Your task to perform on an android device: delete location history Image 0: 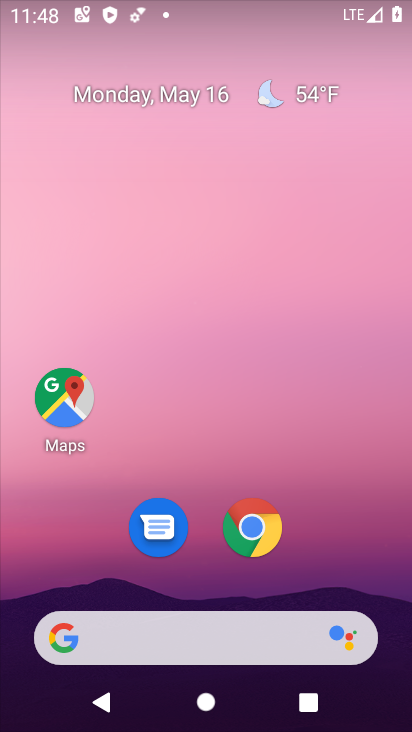
Step 0: drag from (205, 665) to (271, 211)
Your task to perform on an android device: delete location history Image 1: 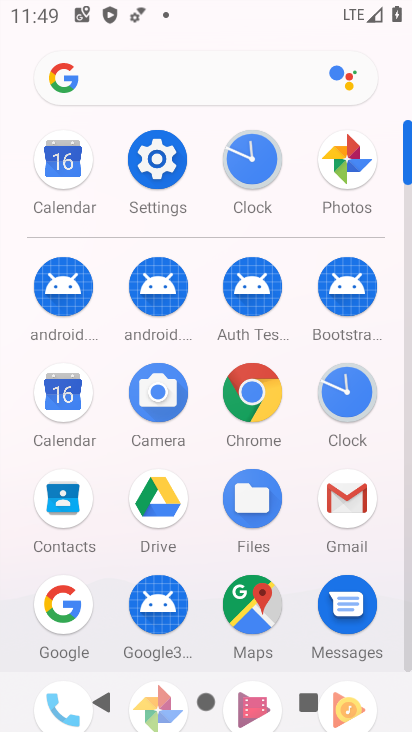
Step 1: click (139, 155)
Your task to perform on an android device: delete location history Image 2: 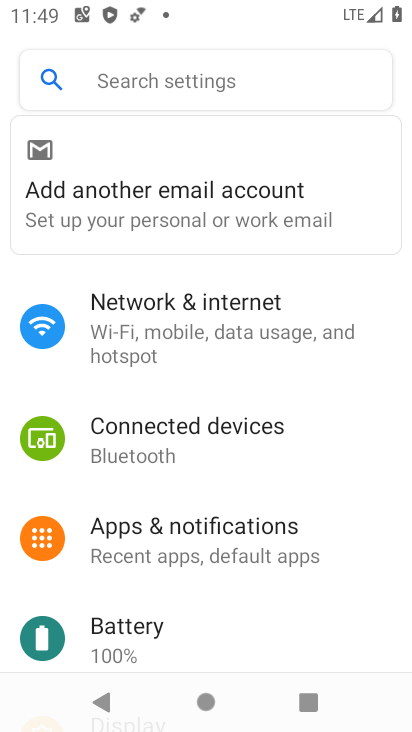
Step 2: click (185, 78)
Your task to perform on an android device: delete location history Image 3: 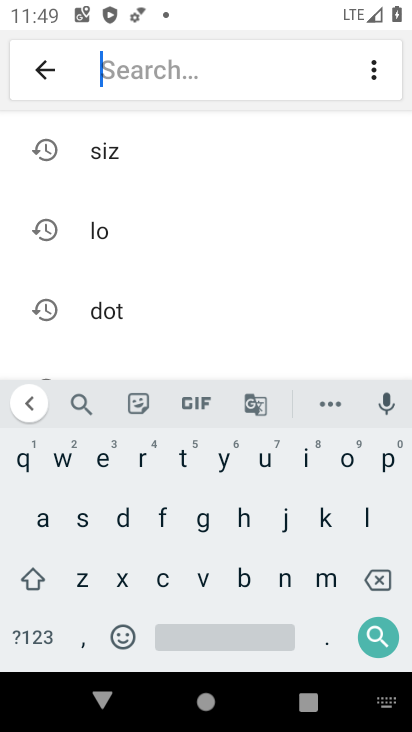
Step 3: click (128, 238)
Your task to perform on an android device: delete location history Image 4: 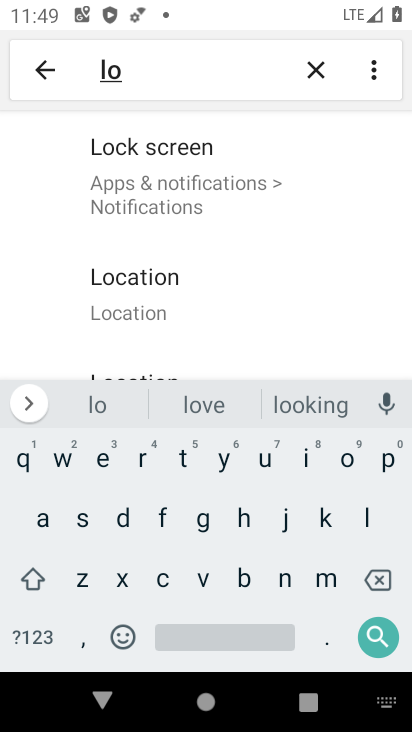
Step 4: click (122, 304)
Your task to perform on an android device: delete location history Image 5: 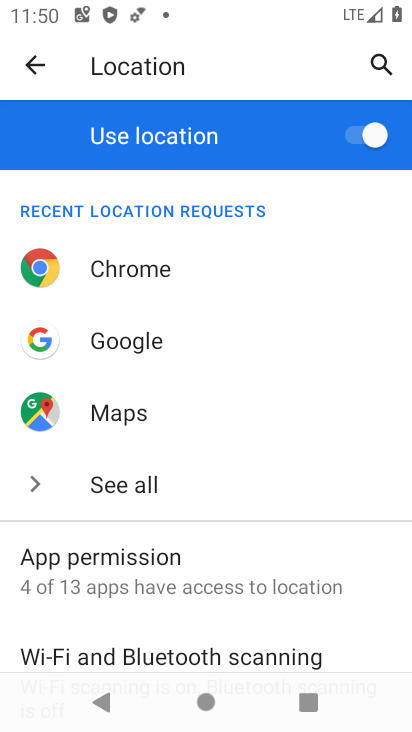
Step 5: drag from (197, 381) to (207, 228)
Your task to perform on an android device: delete location history Image 6: 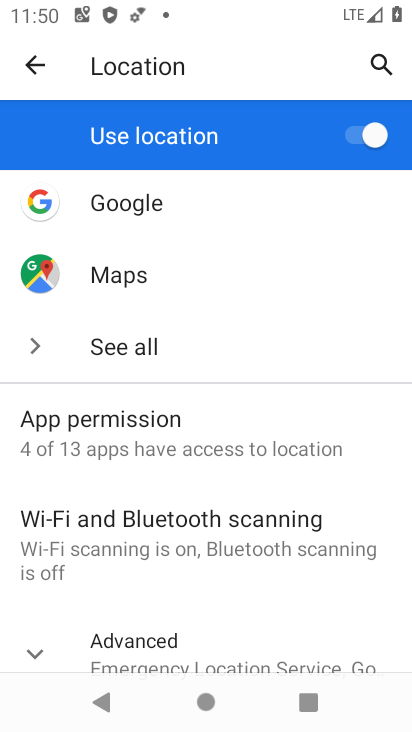
Step 6: drag from (200, 445) to (212, 353)
Your task to perform on an android device: delete location history Image 7: 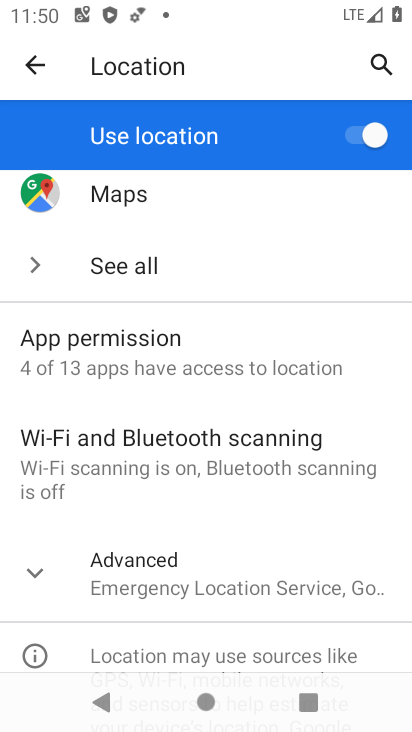
Step 7: click (56, 569)
Your task to perform on an android device: delete location history Image 8: 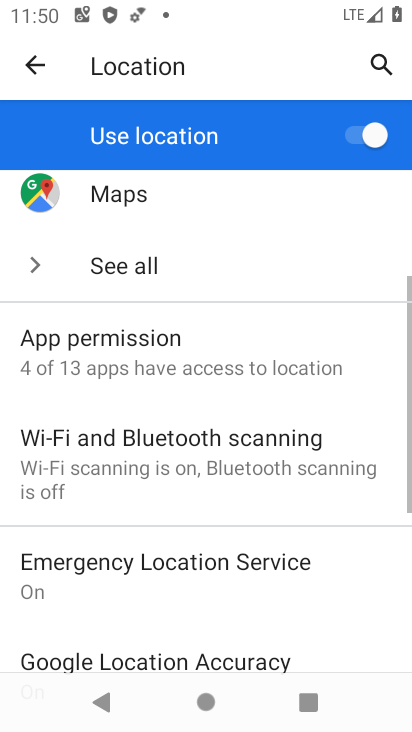
Step 8: drag from (137, 556) to (188, 405)
Your task to perform on an android device: delete location history Image 9: 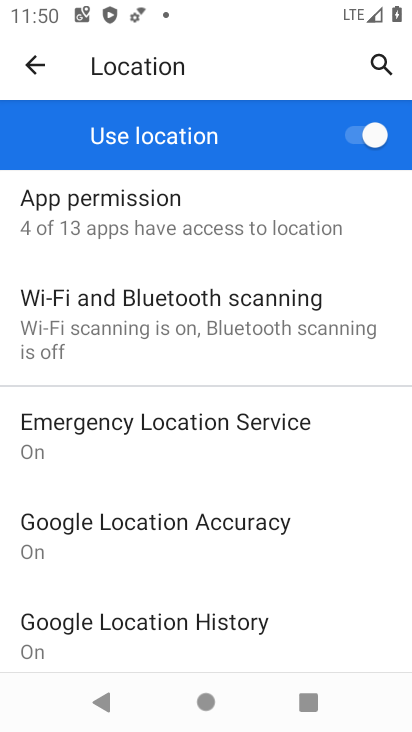
Step 9: click (190, 616)
Your task to perform on an android device: delete location history Image 10: 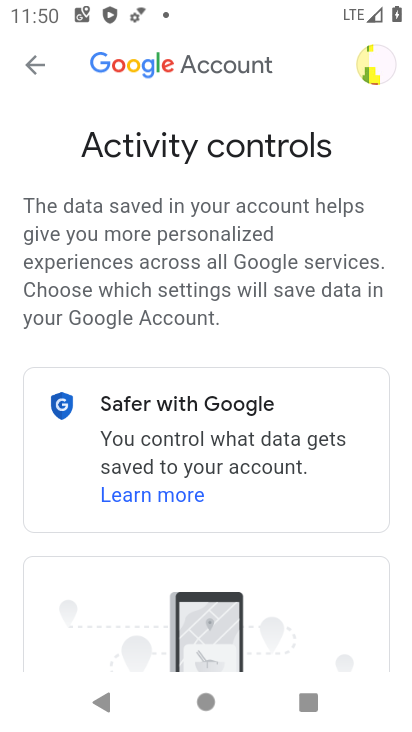
Step 10: task complete